Your task to perform on an android device: check android version Image 0: 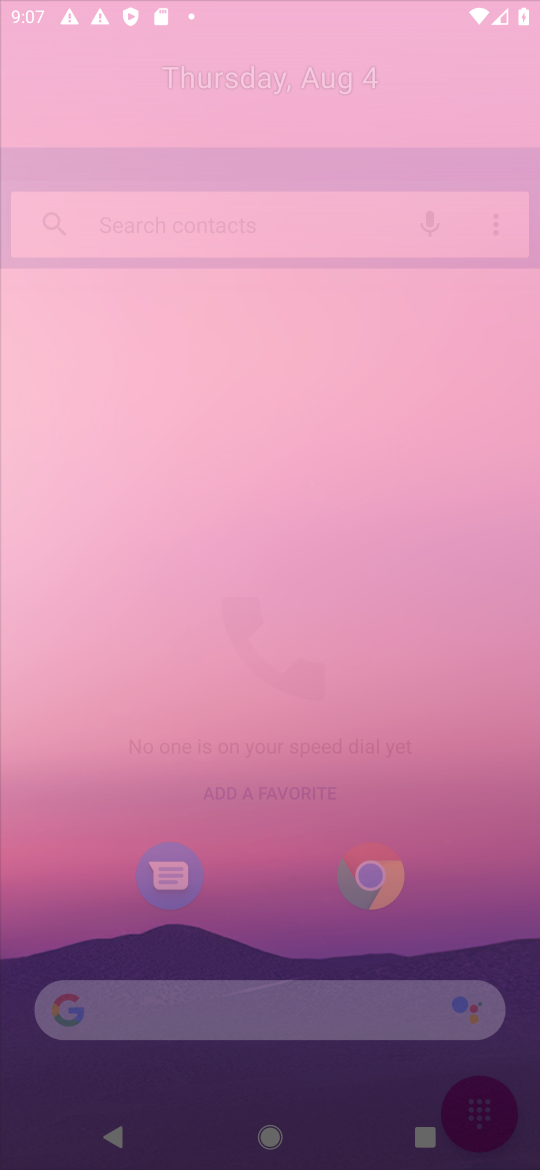
Step 0: click (404, 470)
Your task to perform on an android device: check android version Image 1: 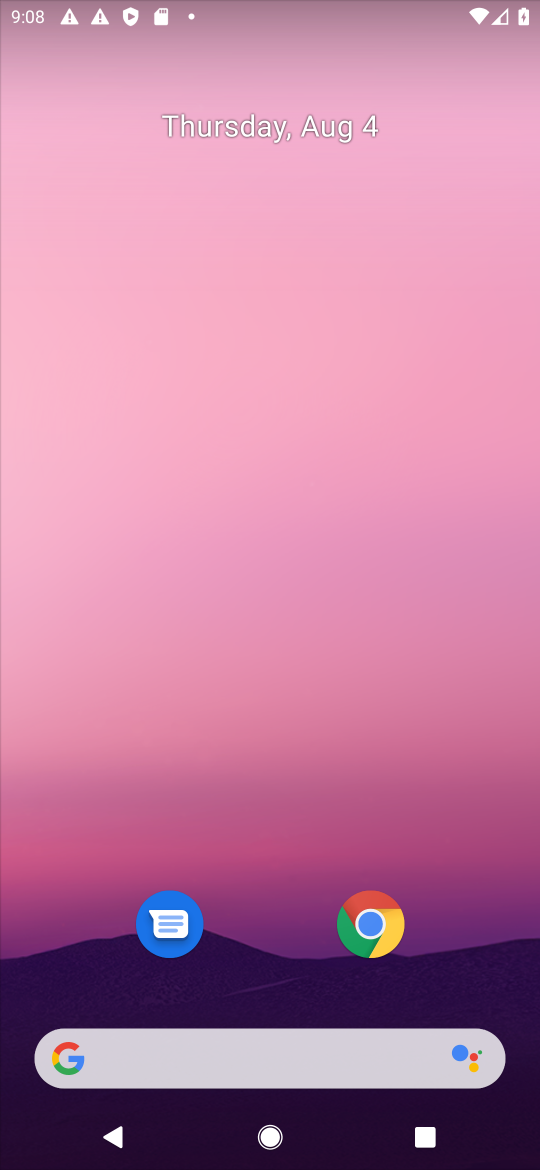
Step 1: click (317, 209)
Your task to perform on an android device: check android version Image 2: 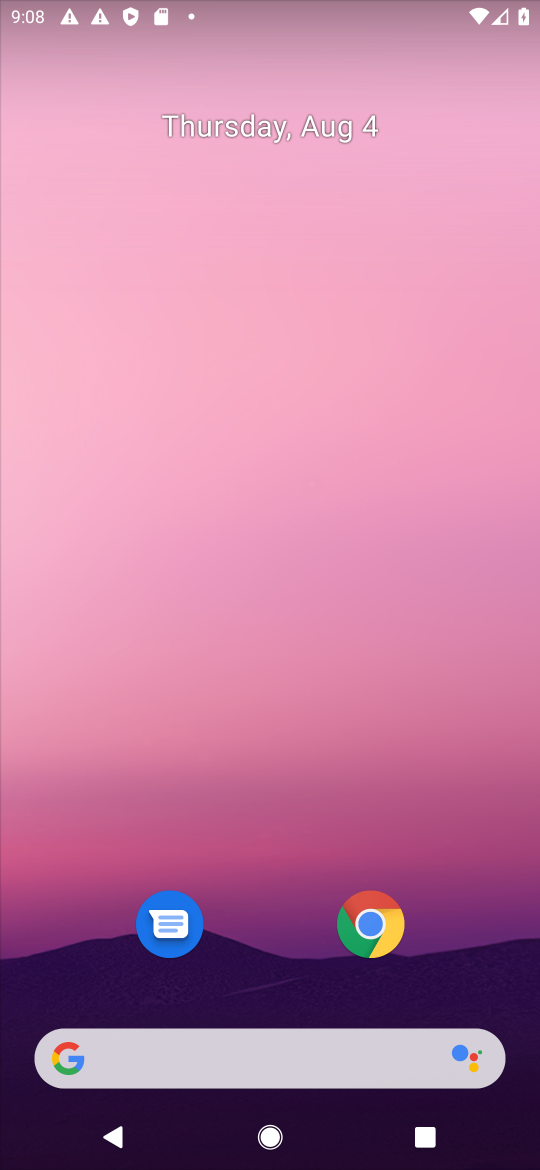
Step 2: drag from (266, 973) to (295, 185)
Your task to perform on an android device: check android version Image 3: 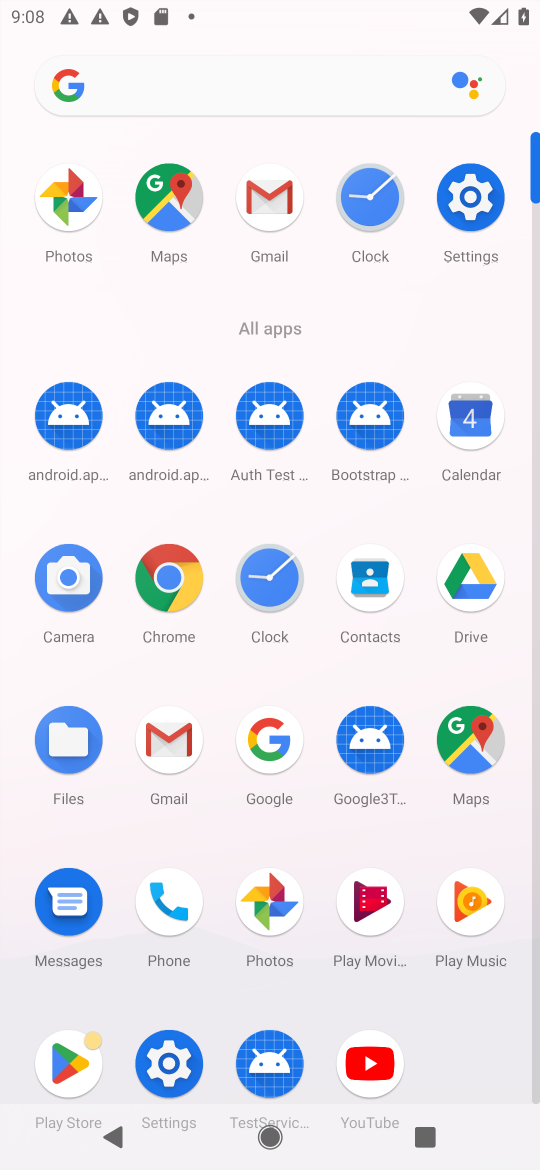
Step 3: click (156, 1053)
Your task to perform on an android device: check android version Image 4: 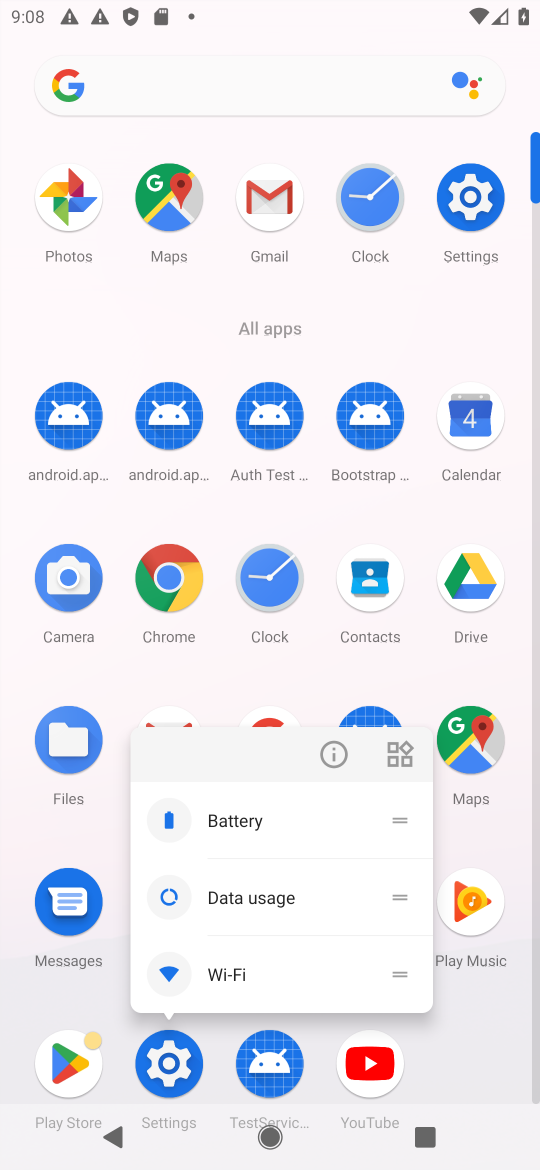
Step 4: click (331, 755)
Your task to perform on an android device: check android version Image 5: 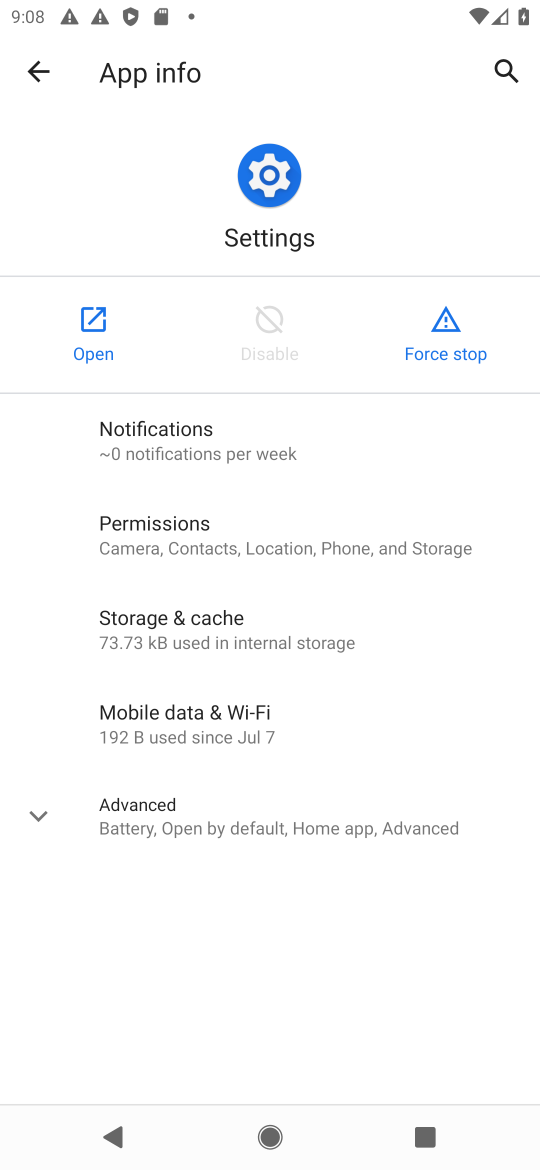
Step 5: click (80, 318)
Your task to perform on an android device: check android version Image 6: 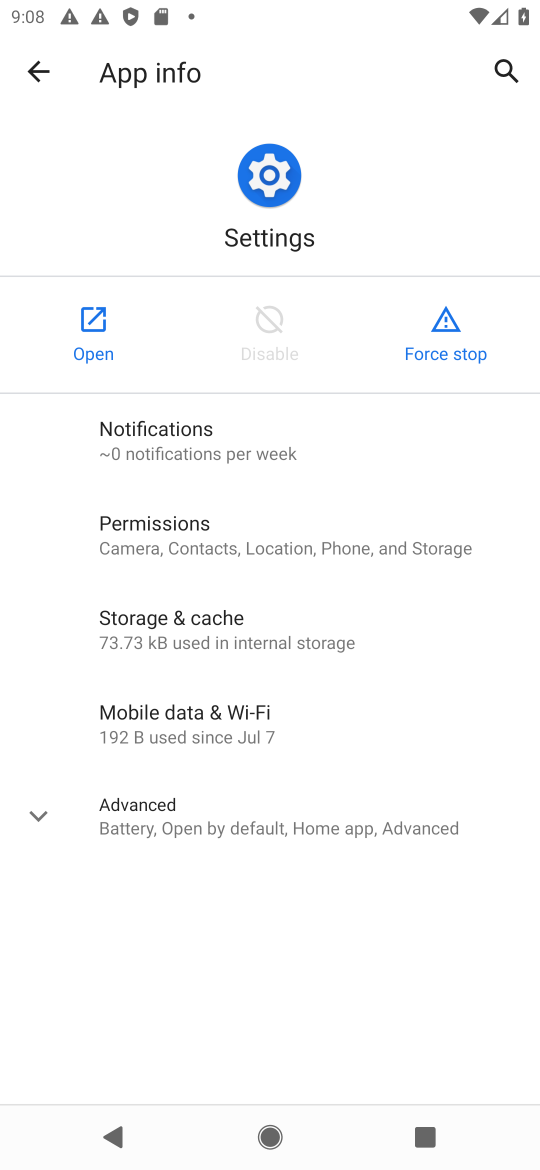
Step 6: click (96, 327)
Your task to perform on an android device: check android version Image 7: 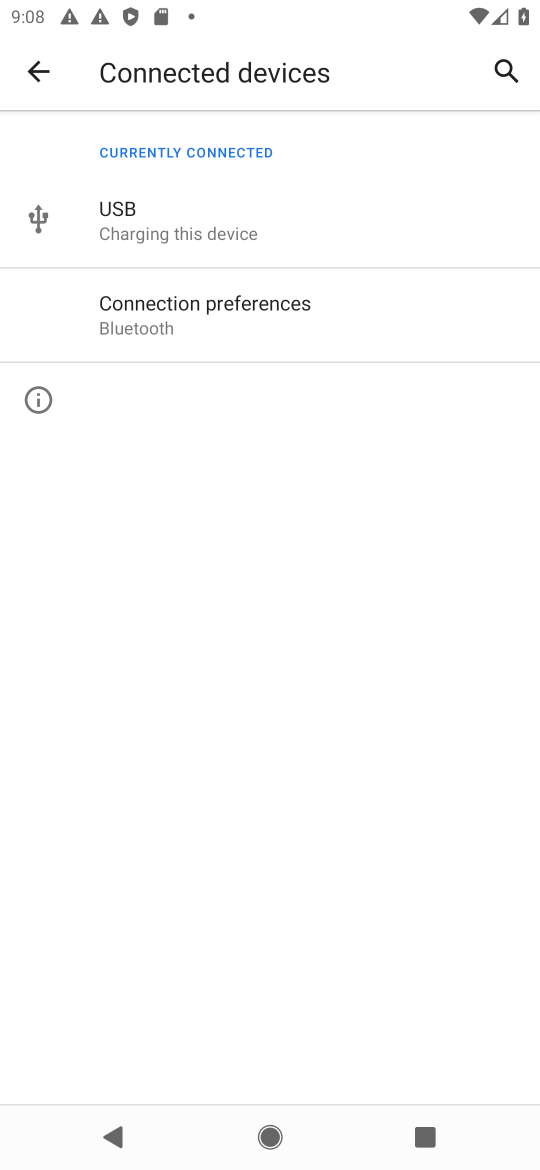
Step 7: click (47, 57)
Your task to perform on an android device: check android version Image 8: 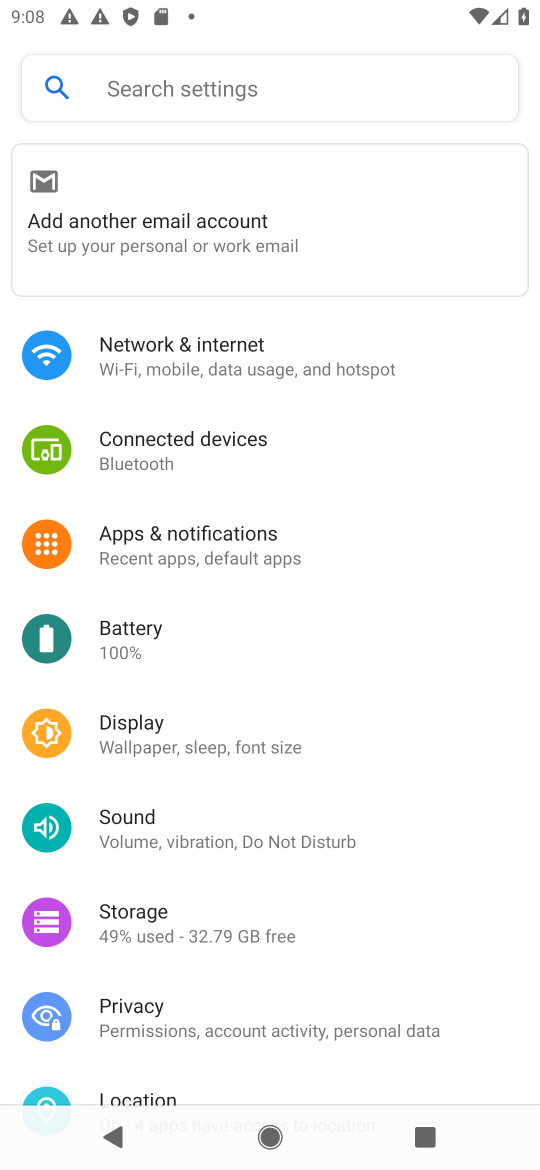
Step 8: drag from (221, 701) to (321, 178)
Your task to perform on an android device: check android version Image 9: 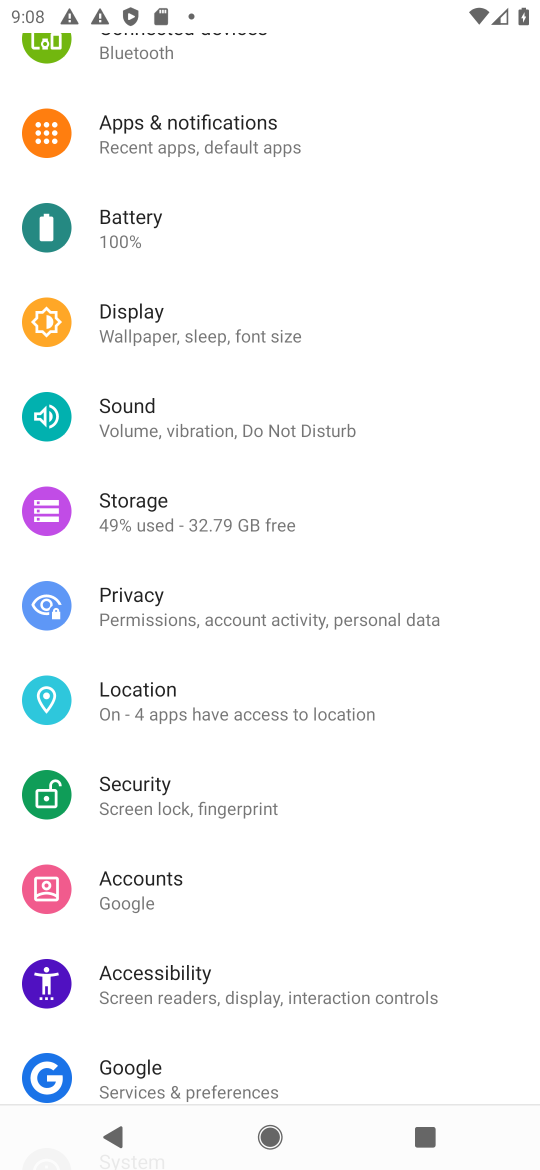
Step 9: drag from (345, 419) to (356, 994)
Your task to perform on an android device: check android version Image 10: 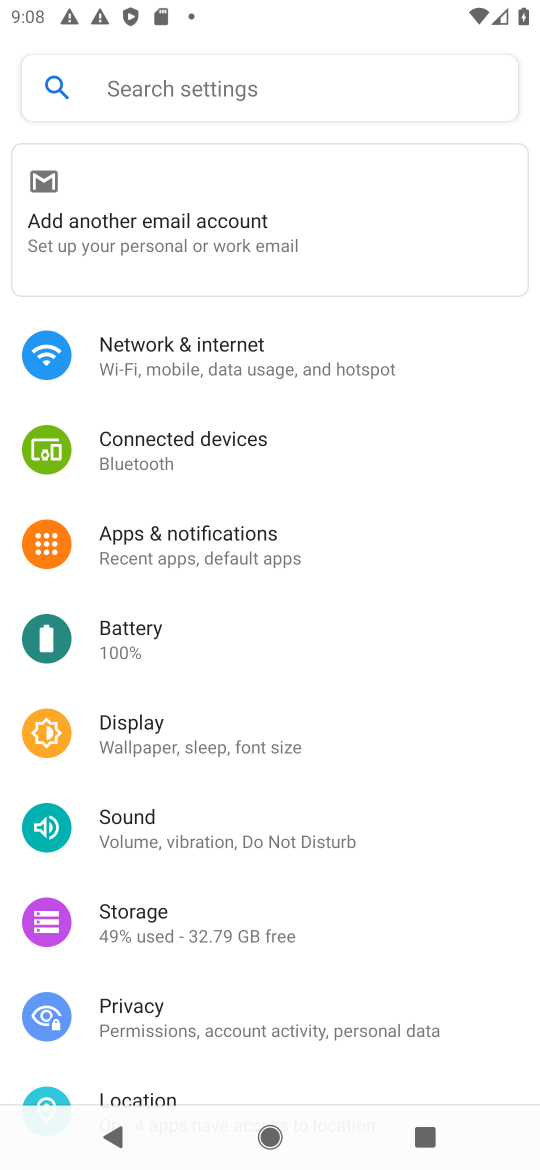
Step 10: click (151, 359)
Your task to perform on an android device: check android version Image 11: 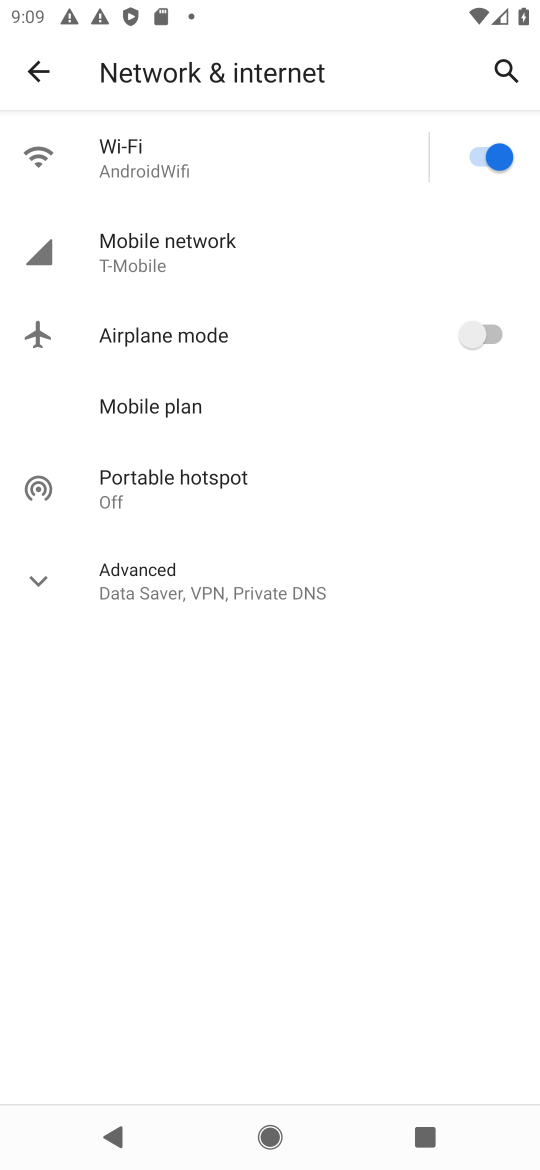
Step 11: click (37, 69)
Your task to perform on an android device: check android version Image 12: 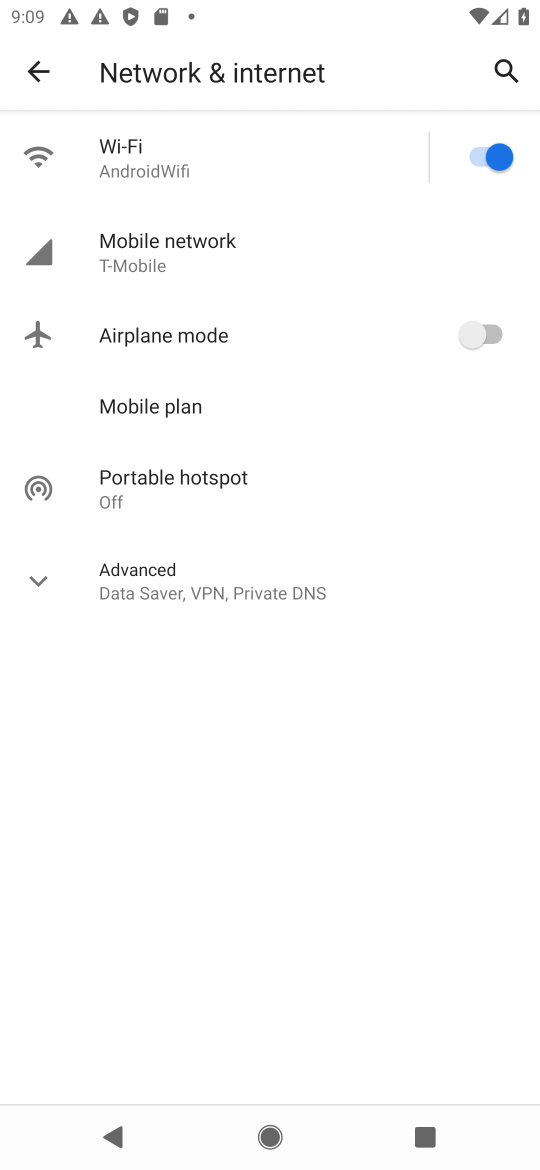
Step 12: drag from (192, 874) to (394, 4)
Your task to perform on an android device: check android version Image 13: 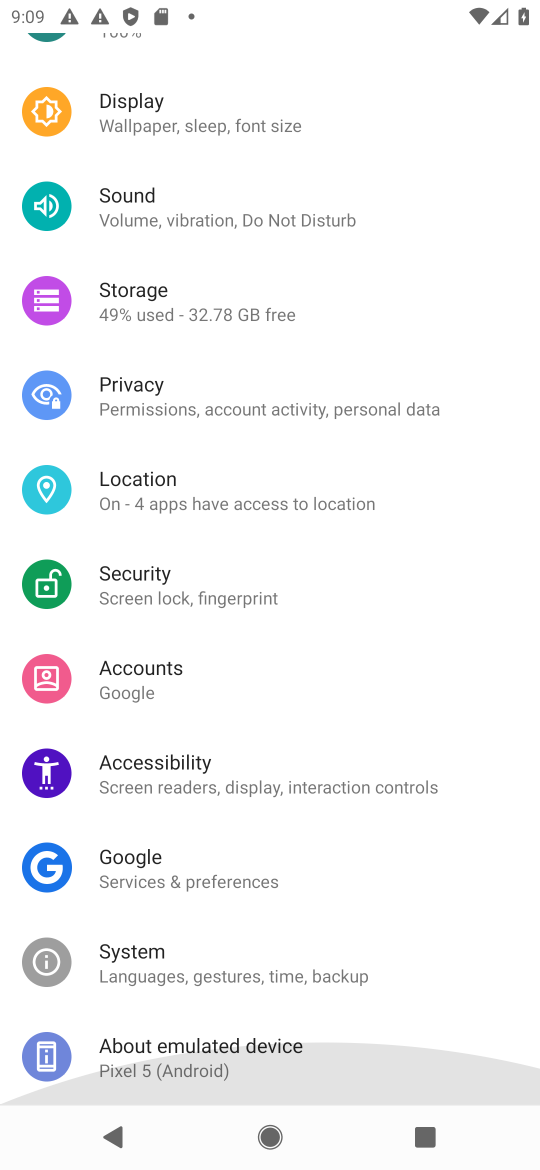
Step 13: drag from (210, 1009) to (334, 205)
Your task to perform on an android device: check android version Image 14: 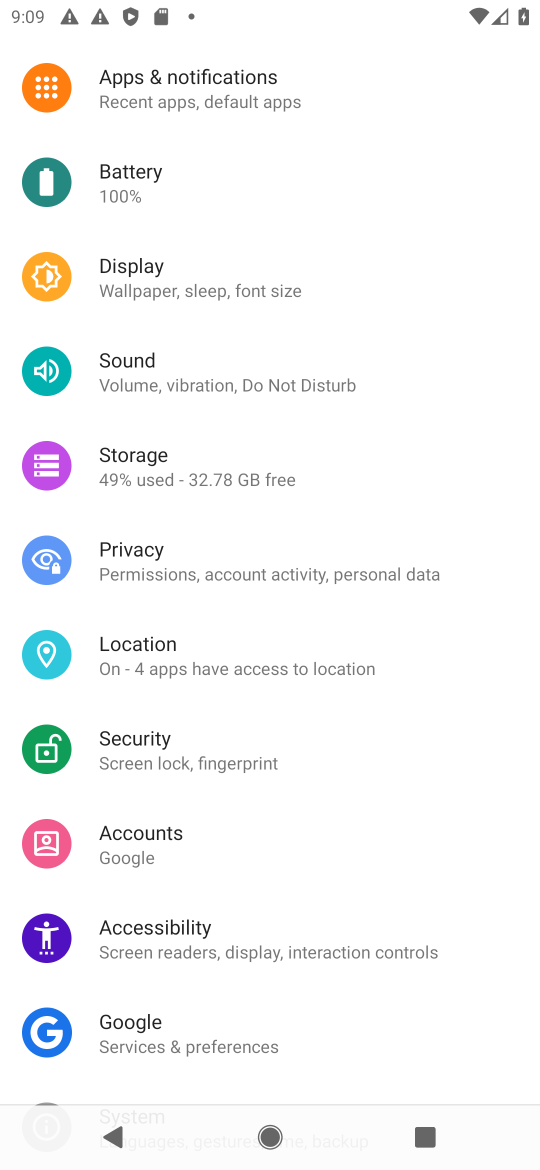
Step 14: drag from (199, 876) to (275, 440)
Your task to perform on an android device: check android version Image 15: 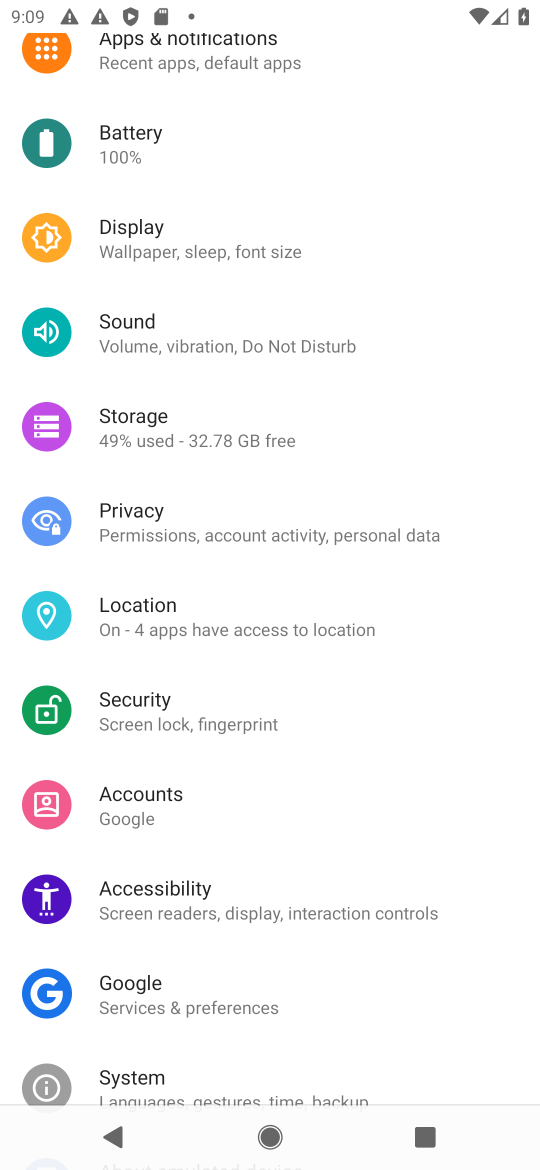
Step 15: drag from (188, 768) to (295, 347)
Your task to perform on an android device: check android version Image 16: 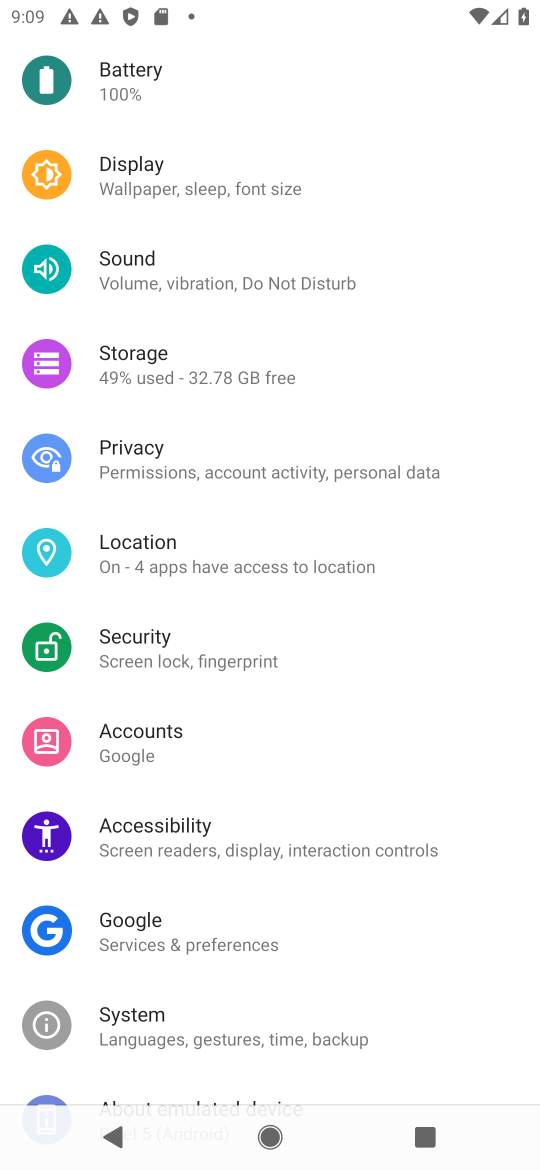
Step 16: drag from (214, 971) to (311, 417)
Your task to perform on an android device: check android version Image 17: 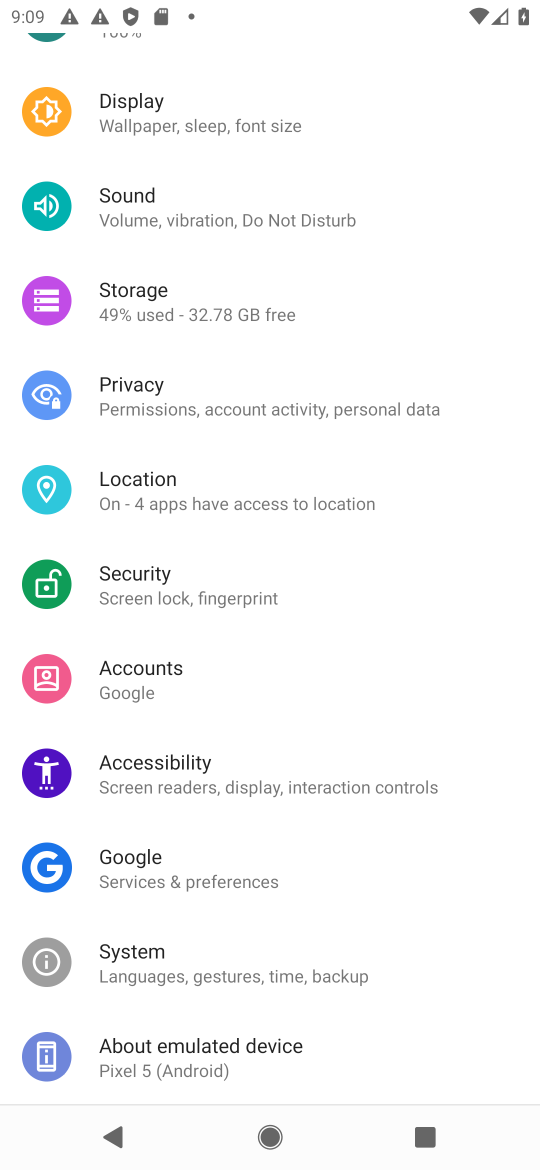
Step 17: click (234, 1050)
Your task to perform on an android device: check android version Image 18: 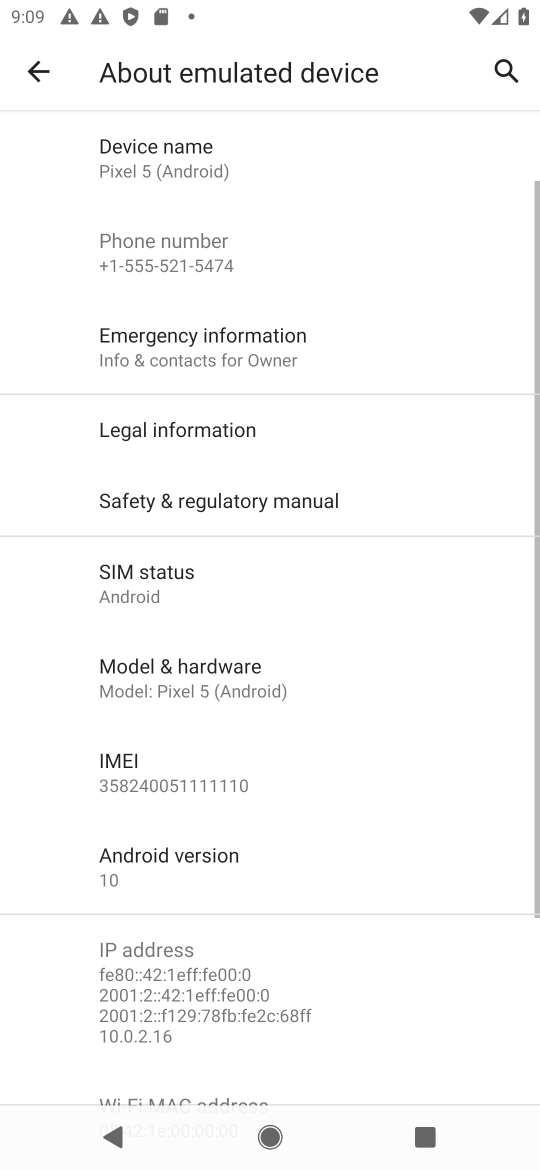
Step 18: click (203, 863)
Your task to perform on an android device: check android version Image 19: 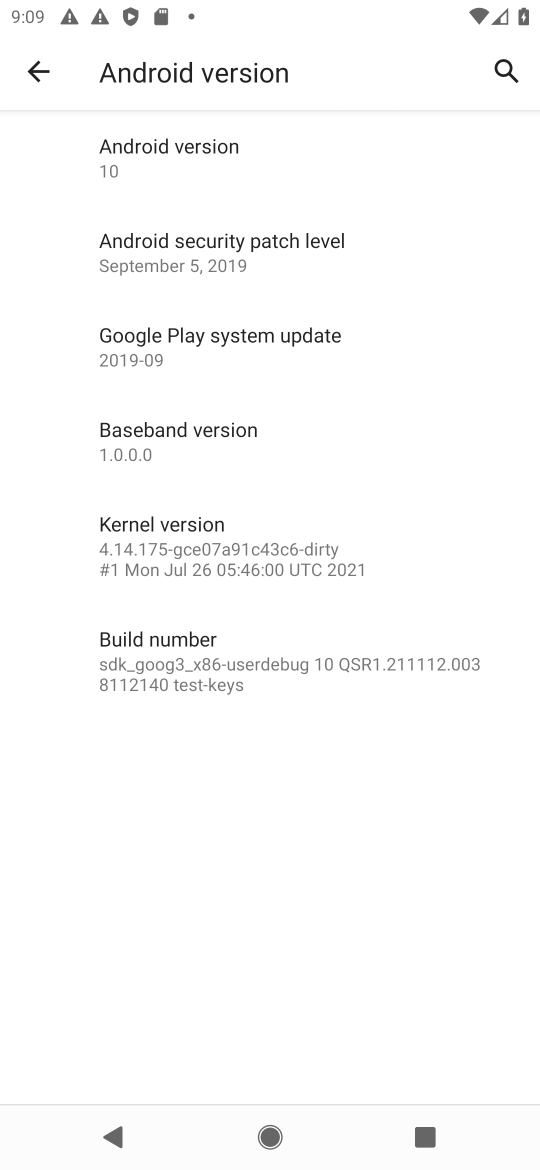
Step 19: click (259, 165)
Your task to perform on an android device: check android version Image 20: 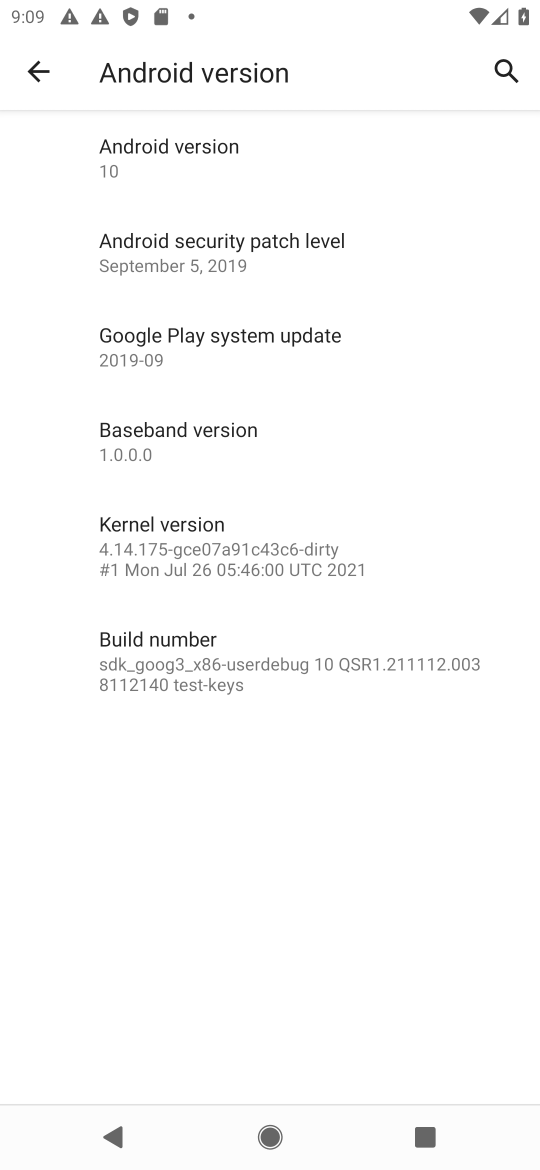
Step 20: task complete